Your task to perform on an android device: open chrome and create a bookmark for the current page Image 0: 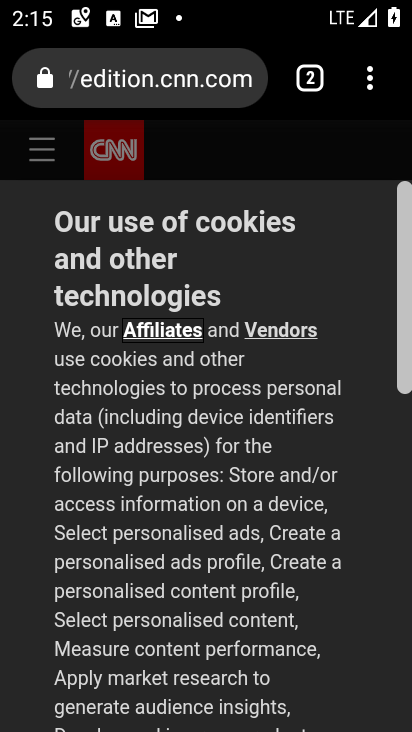
Step 0: click (372, 87)
Your task to perform on an android device: open chrome and create a bookmark for the current page Image 1: 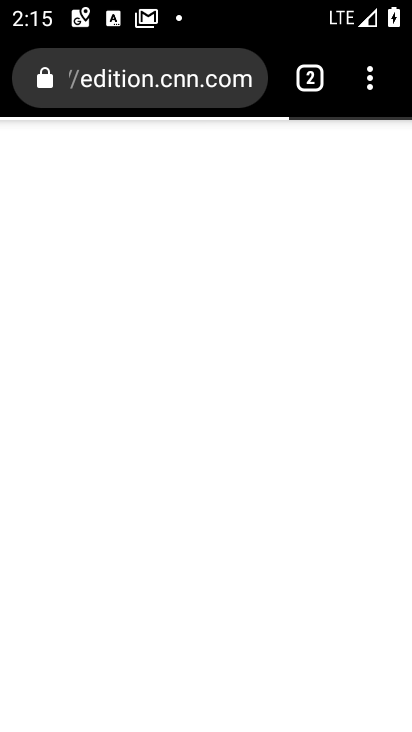
Step 1: click (368, 88)
Your task to perform on an android device: open chrome and create a bookmark for the current page Image 2: 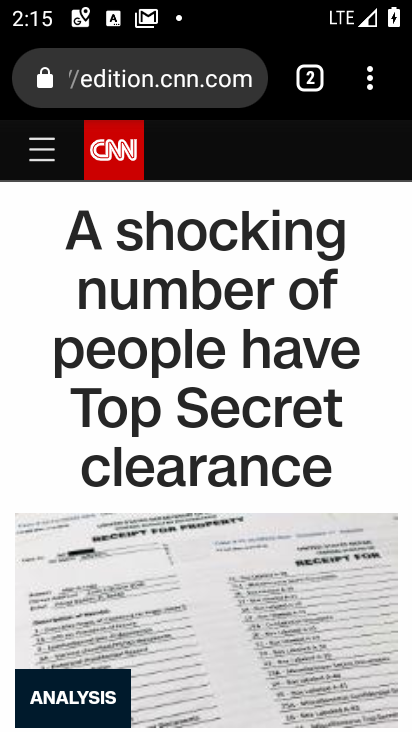
Step 2: click (306, 87)
Your task to perform on an android device: open chrome and create a bookmark for the current page Image 3: 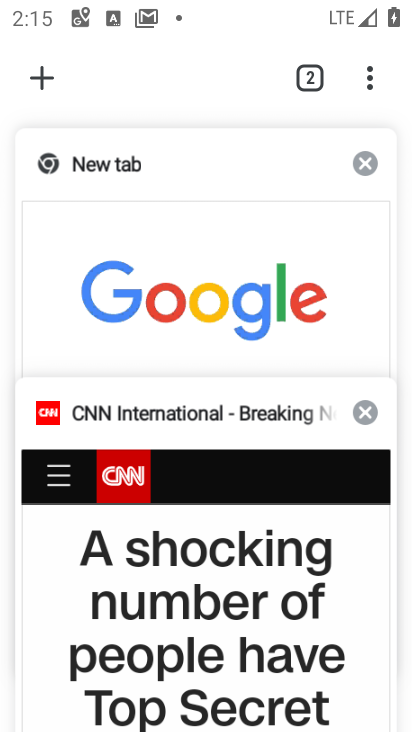
Step 3: click (41, 82)
Your task to perform on an android device: open chrome and create a bookmark for the current page Image 4: 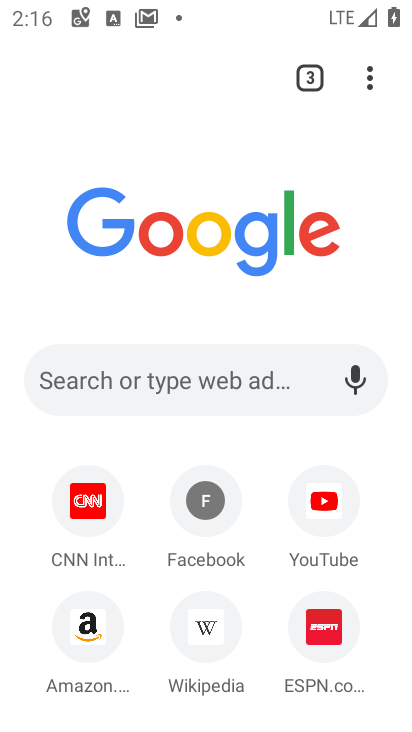
Step 4: drag from (272, 543) to (279, 119)
Your task to perform on an android device: open chrome and create a bookmark for the current page Image 5: 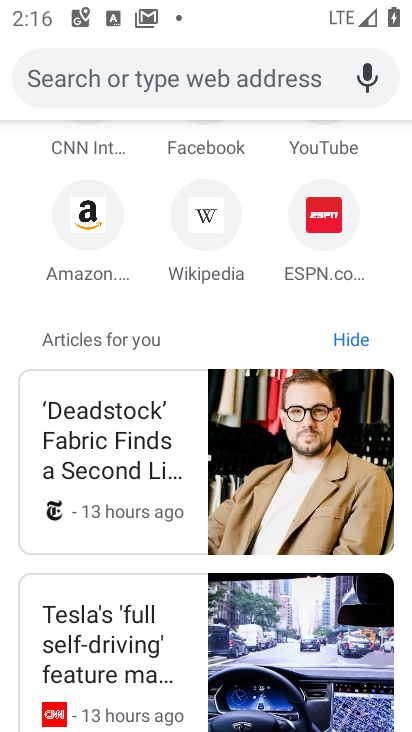
Step 5: drag from (204, 531) to (224, 117)
Your task to perform on an android device: open chrome and create a bookmark for the current page Image 6: 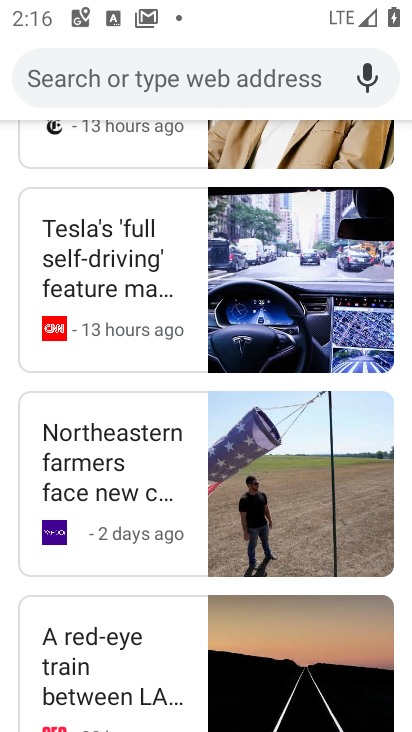
Step 6: click (138, 607)
Your task to perform on an android device: open chrome and create a bookmark for the current page Image 7: 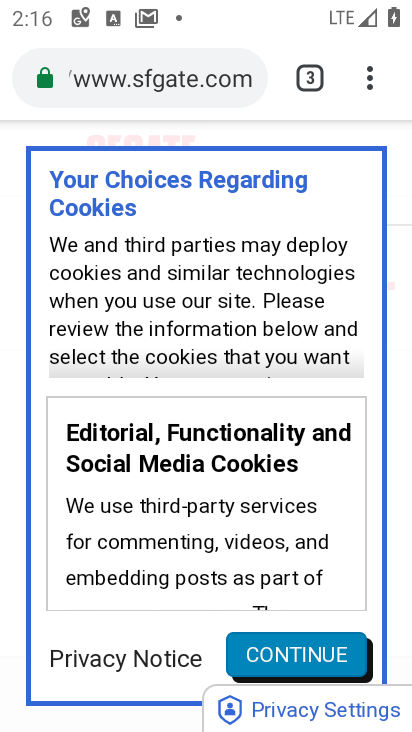
Step 7: click (370, 79)
Your task to perform on an android device: open chrome and create a bookmark for the current page Image 8: 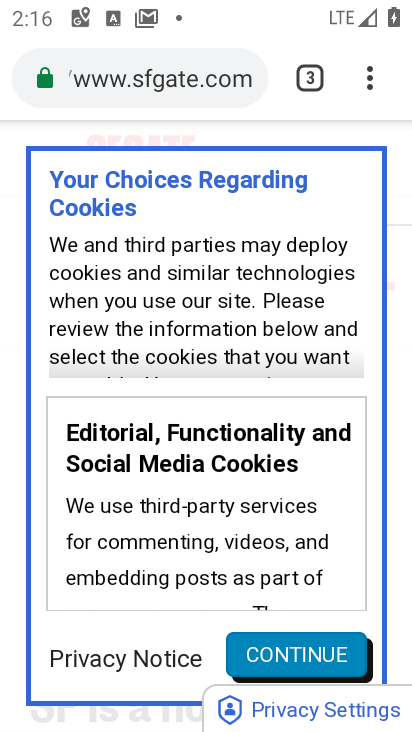
Step 8: click (370, 79)
Your task to perform on an android device: open chrome and create a bookmark for the current page Image 9: 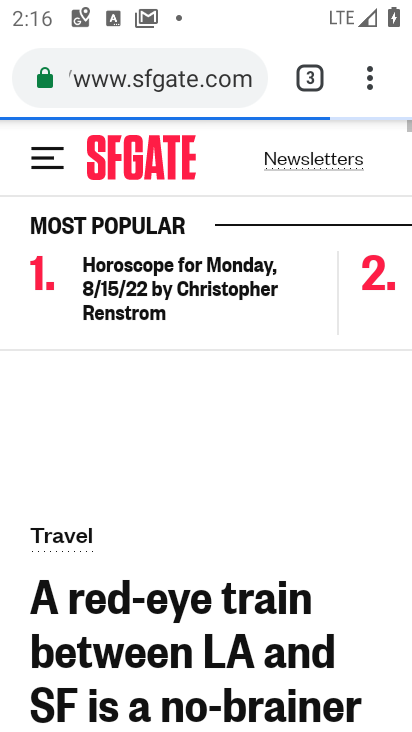
Step 9: task complete